Your task to perform on an android device: Find coffee shops on Maps Image 0: 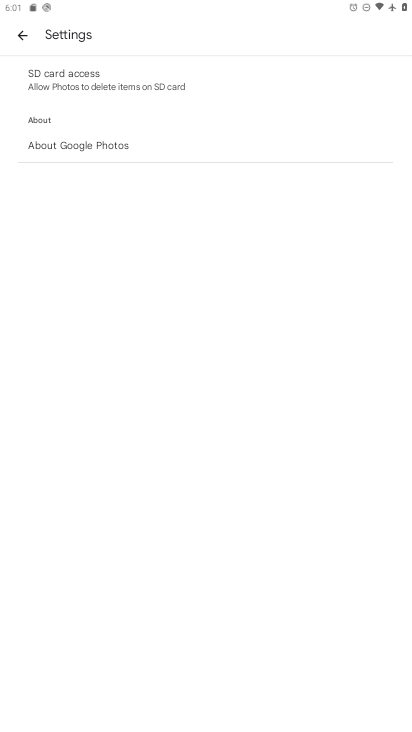
Step 0: click (385, 650)
Your task to perform on an android device: Find coffee shops on Maps Image 1: 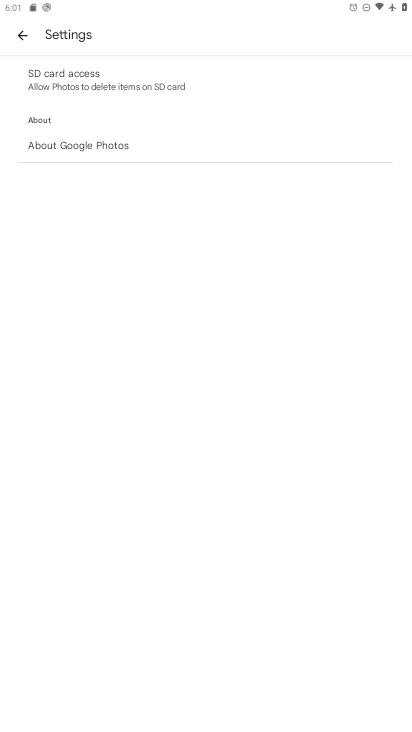
Step 1: press home button
Your task to perform on an android device: Find coffee shops on Maps Image 2: 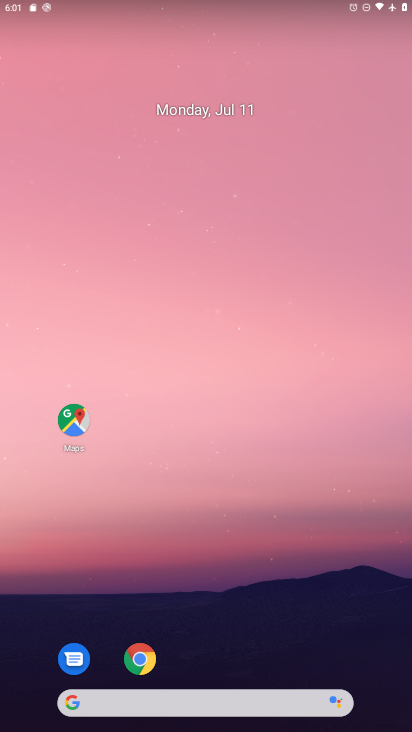
Step 2: click (73, 421)
Your task to perform on an android device: Find coffee shops on Maps Image 3: 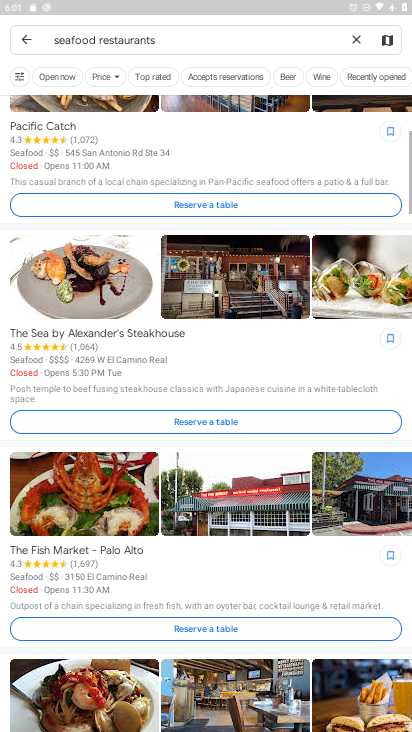
Step 3: click (356, 38)
Your task to perform on an android device: Find coffee shops on Maps Image 4: 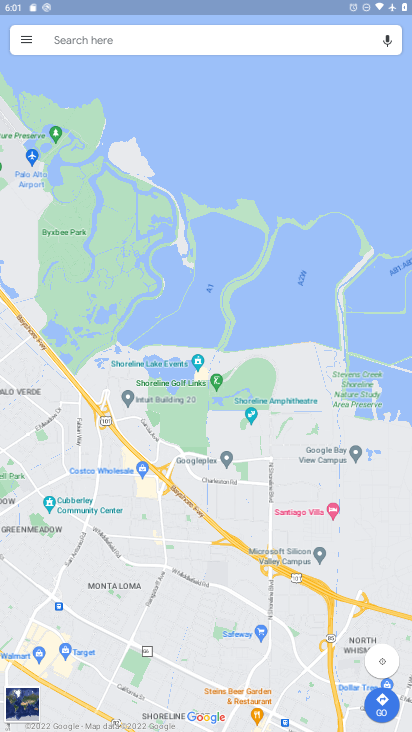
Step 4: click (92, 34)
Your task to perform on an android device: Find coffee shops on Maps Image 5: 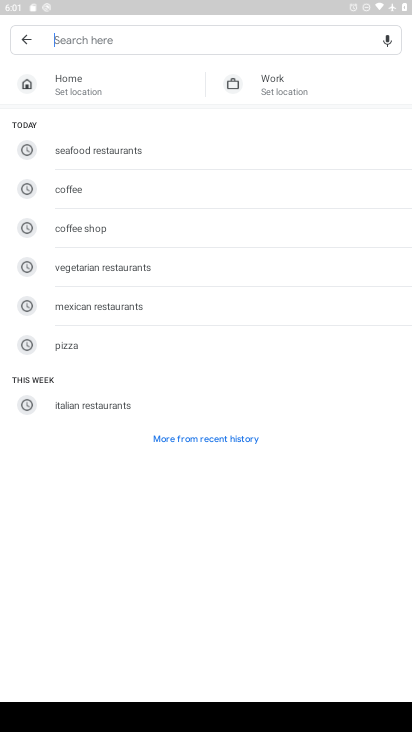
Step 5: type "coffee shop"
Your task to perform on an android device: Find coffee shops on Maps Image 6: 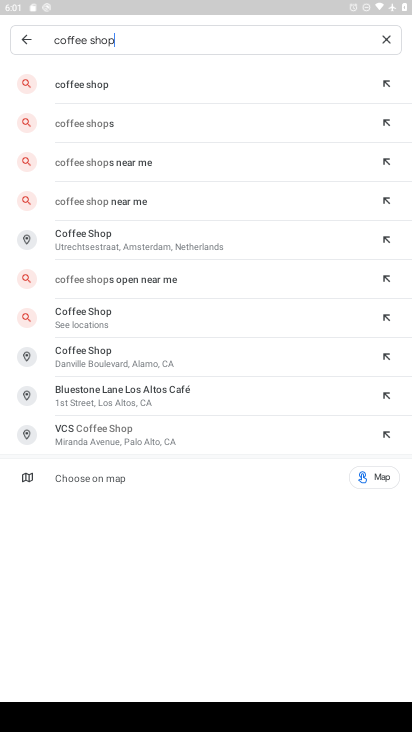
Step 6: click (74, 86)
Your task to perform on an android device: Find coffee shops on Maps Image 7: 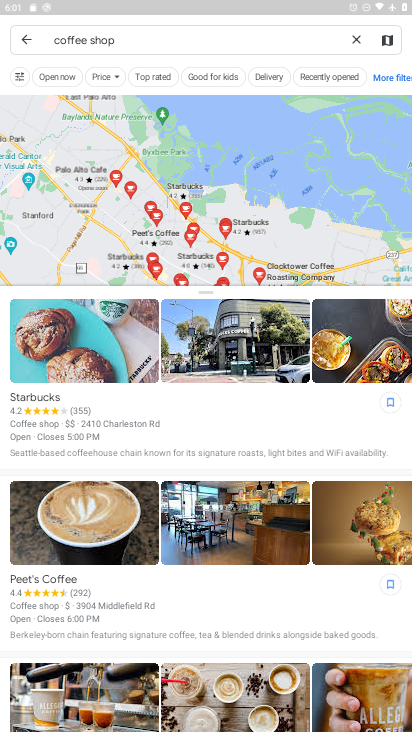
Step 7: task complete